Your task to perform on an android device: Open the web browser Image 0: 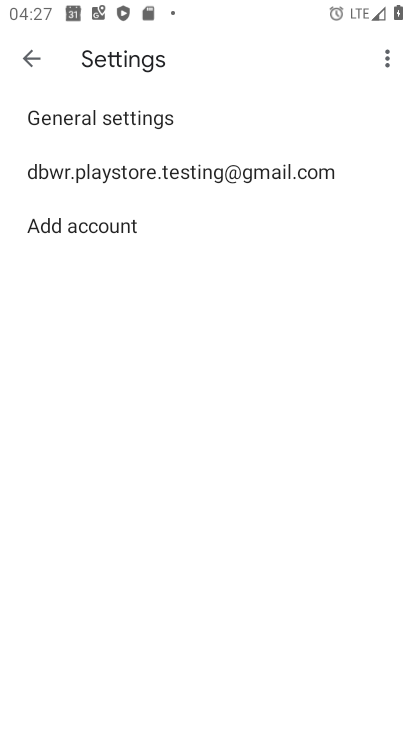
Step 0: press home button
Your task to perform on an android device: Open the web browser Image 1: 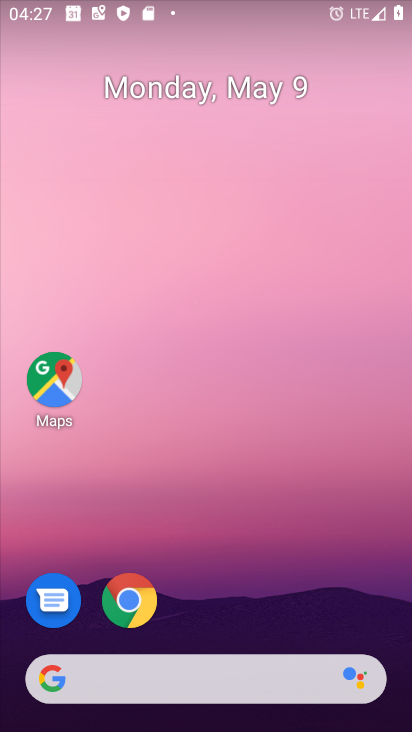
Step 1: drag from (316, 666) to (262, 58)
Your task to perform on an android device: Open the web browser Image 2: 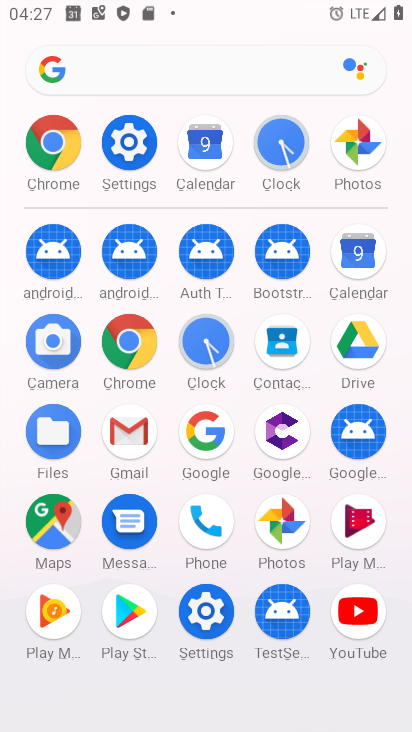
Step 2: click (145, 332)
Your task to perform on an android device: Open the web browser Image 3: 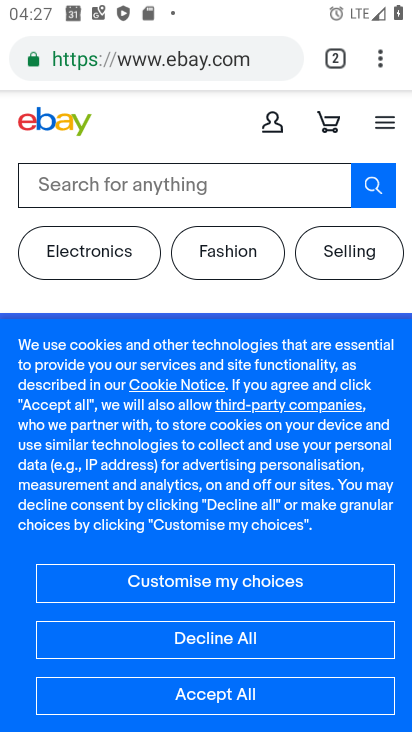
Step 3: click (381, 61)
Your task to perform on an android device: Open the web browser Image 4: 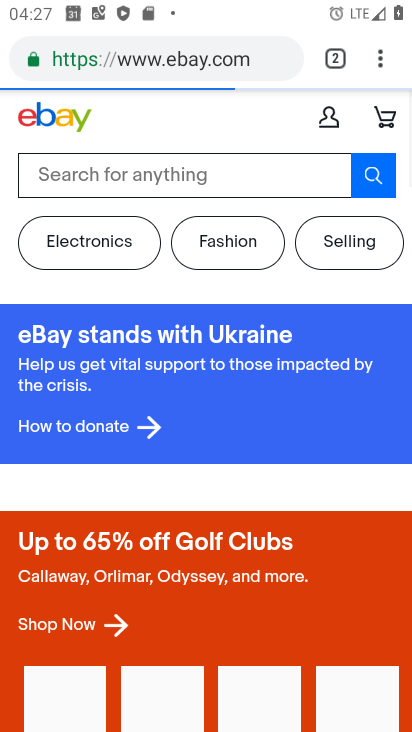
Step 4: task complete